Your task to perform on an android device: Do I have any events today? Image 0: 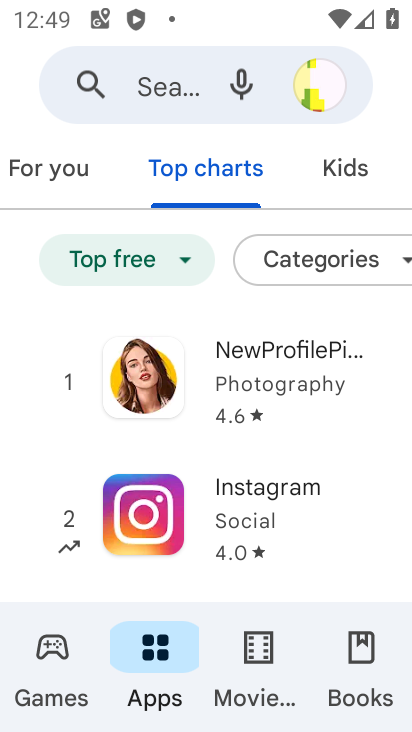
Step 0: press home button
Your task to perform on an android device: Do I have any events today? Image 1: 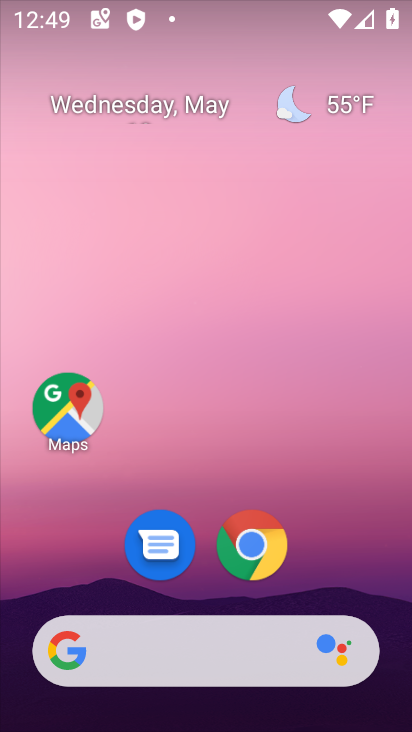
Step 1: drag from (258, 442) to (223, 60)
Your task to perform on an android device: Do I have any events today? Image 2: 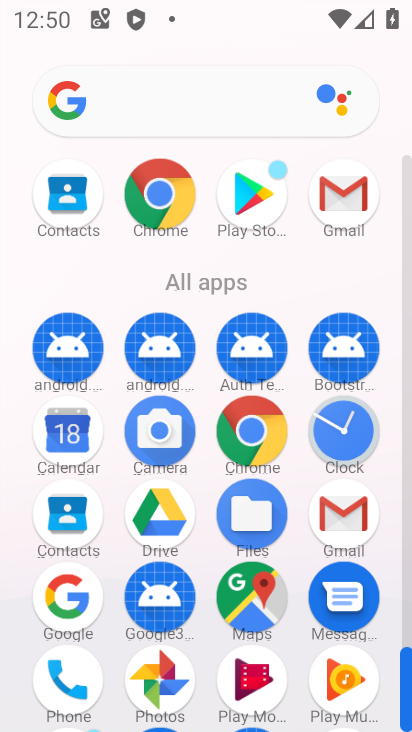
Step 2: click (59, 408)
Your task to perform on an android device: Do I have any events today? Image 3: 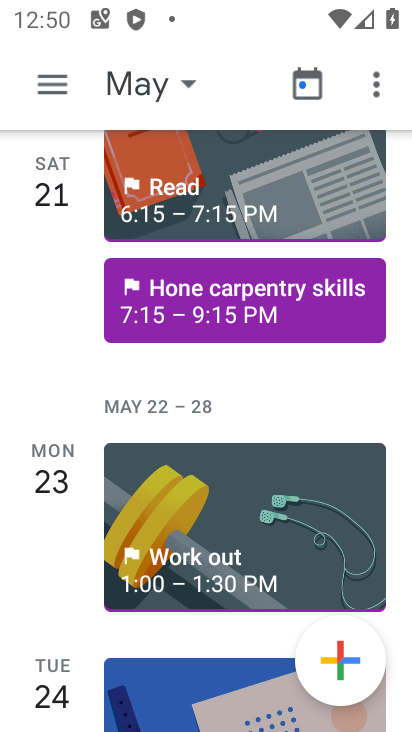
Step 3: click (51, 72)
Your task to perform on an android device: Do I have any events today? Image 4: 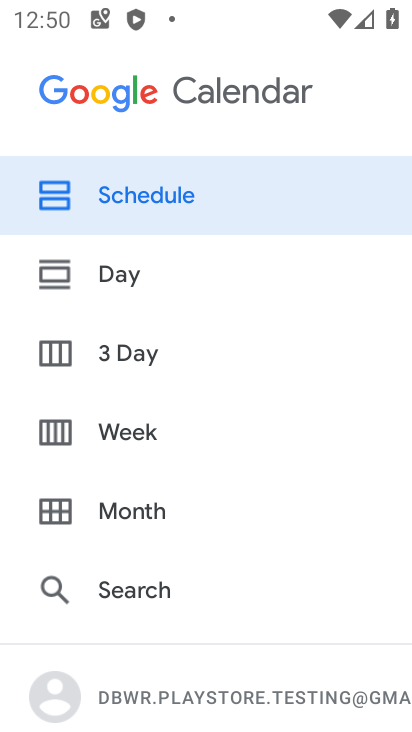
Step 4: click (104, 273)
Your task to perform on an android device: Do I have any events today? Image 5: 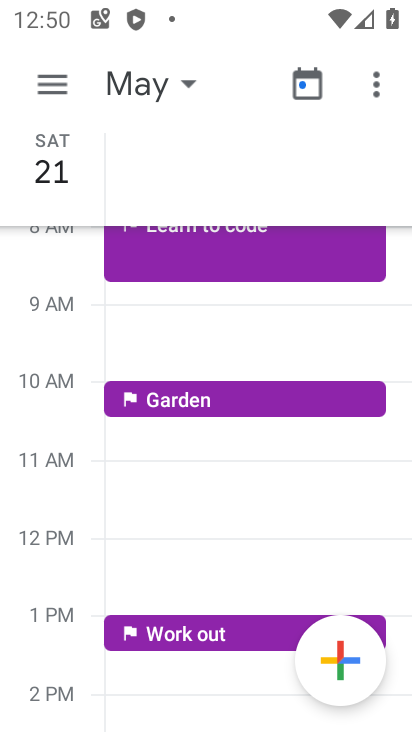
Step 5: click (142, 83)
Your task to perform on an android device: Do I have any events today? Image 6: 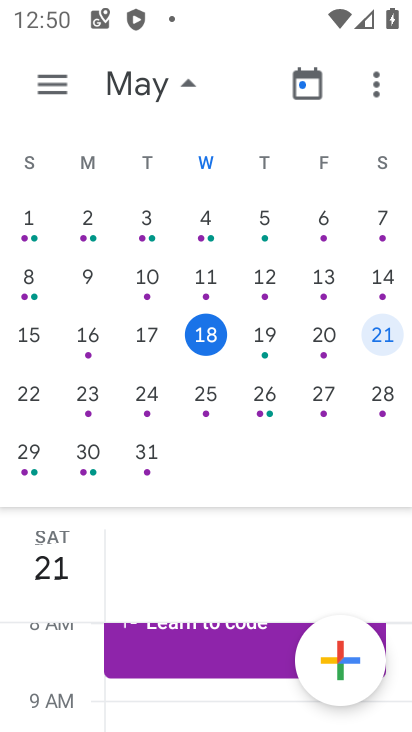
Step 6: click (205, 339)
Your task to perform on an android device: Do I have any events today? Image 7: 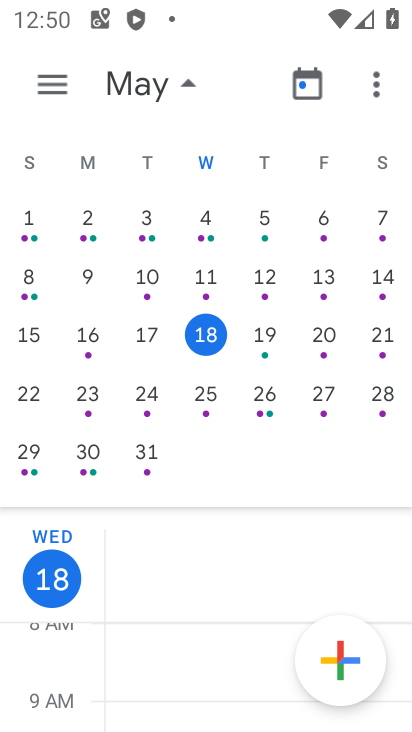
Step 7: task complete